Your task to perform on an android device: Open the calendar and show me this week's events? Image 0: 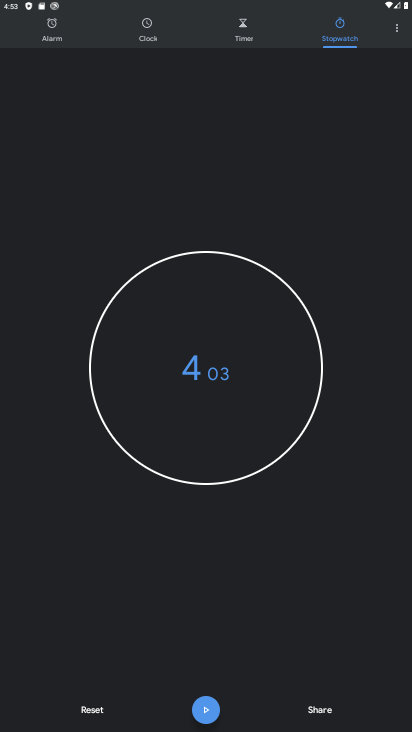
Step 0: press back button
Your task to perform on an android device: Open the calendar and show me this week's events? Image 1: 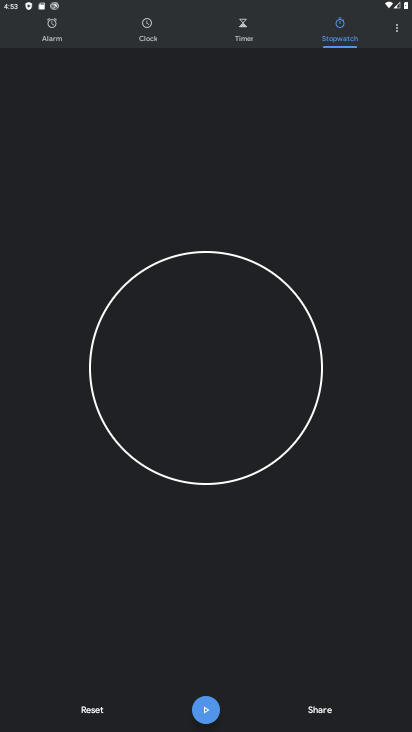
Step 1: press back button
Your task to perform on an android device: Open the calendar and show me this week's events? Image 2: 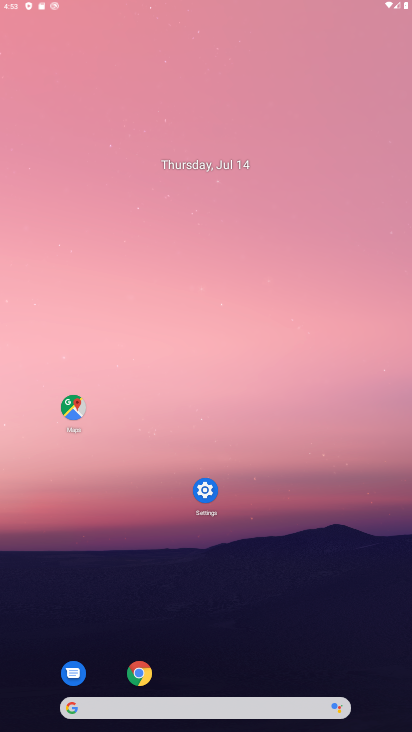
Step 2: press back button
Your task to perform on an android device: Open the calendar and show me this week's events? Image 3: 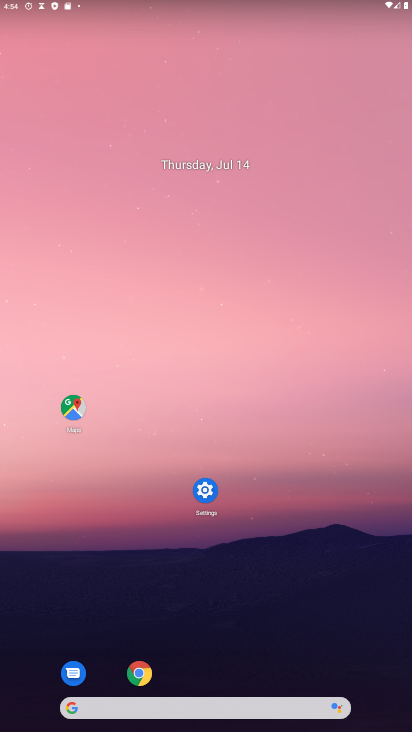
Step 3: press home button
Your task to perform on an android device: Open the calendar and show me this week's events? Image 4: 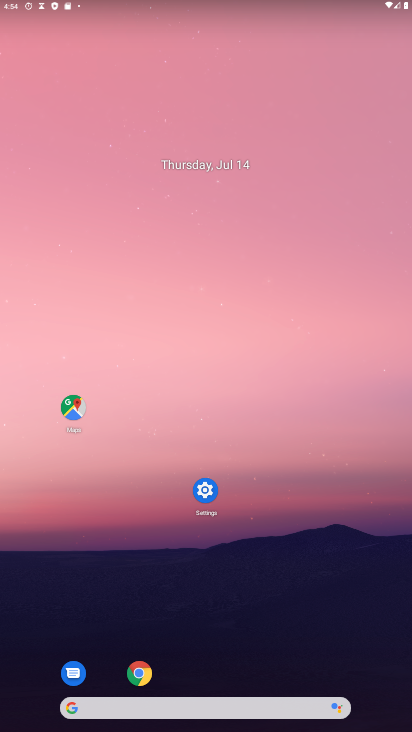
Step 4: click (160, 171)
Your task to perform on an android device: Open the calendar and show me this week's events? Image 5: 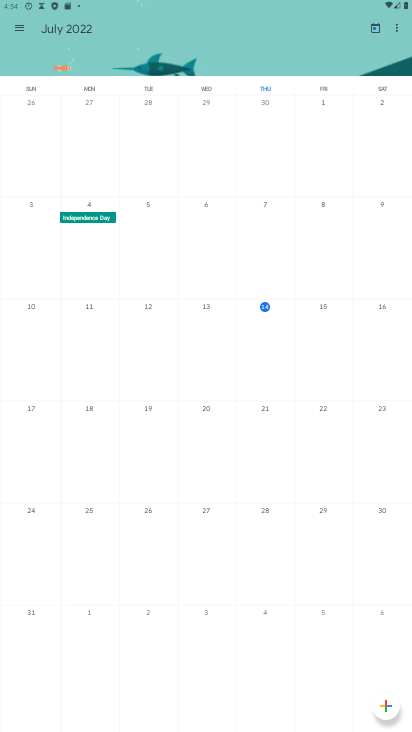
Step 5: click (336, 289)
Your task to perform on an android device: Open the calendar and show me this week's events? Image 6: 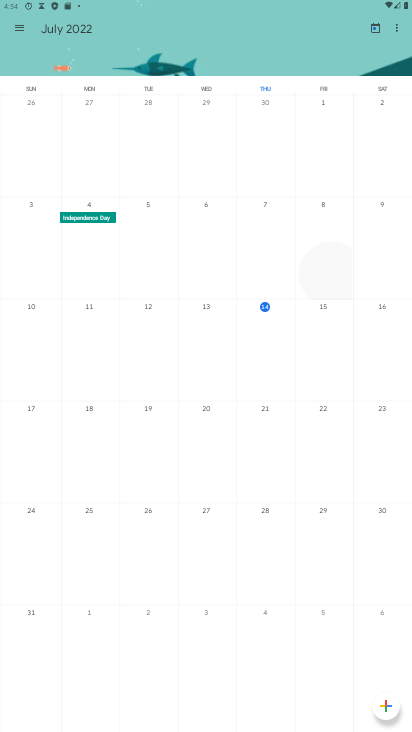
Step 6: click (331, 297)
Your task to perform on an android device: Open the calendar and show me this week's events? Image 7: 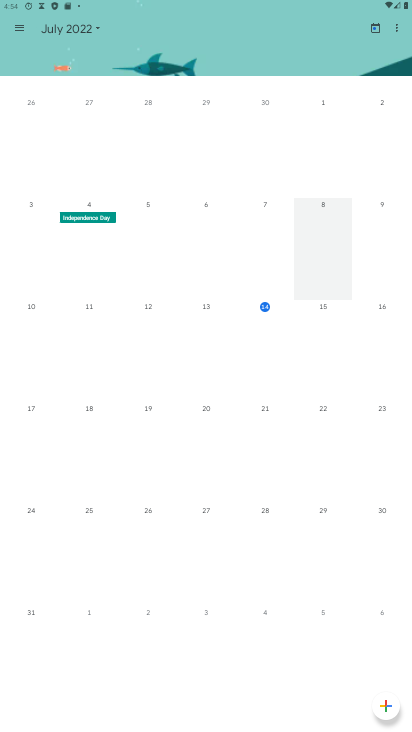
Step 7: click (329, 305)
Your task to perform on an android device: Open the calendar and show me this week's events? Image 8: 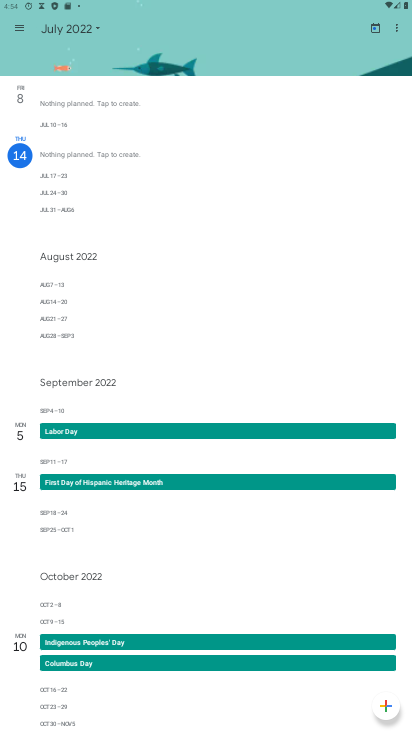
Step 8: click (329, 305)
Your task to perform on an android device: Open the calendar and show me this week's events? Image 9: 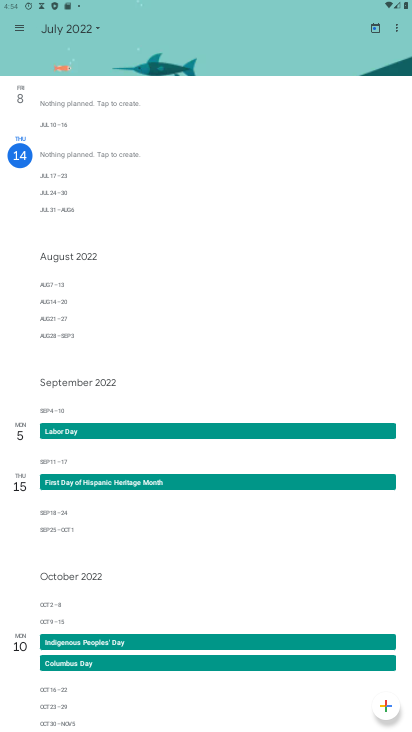
Step 9: click (329, 305)
Your task to perform on an android device: Open the calendar and show me this week's events? Image 10: 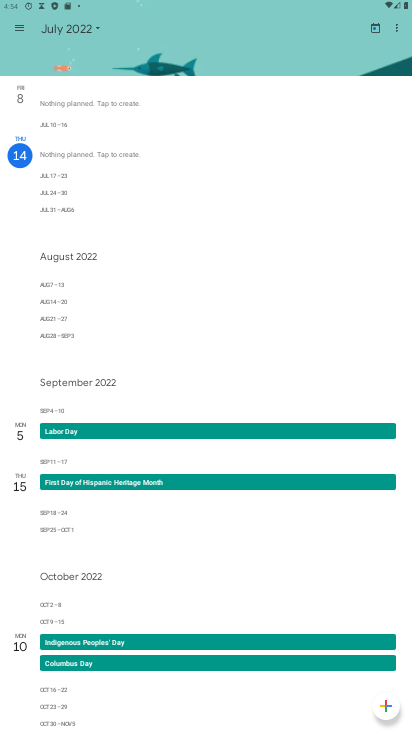
Step 10: task complete